Your task to perform on an android device: toggle show notifications on the lock screen Image 0: 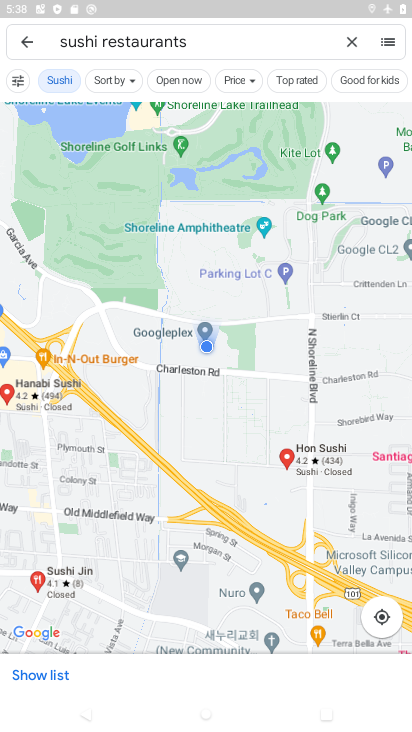
Step 0: press home button
Your task to perform on an android device: toggle show notifications on the lock screen Image 1: 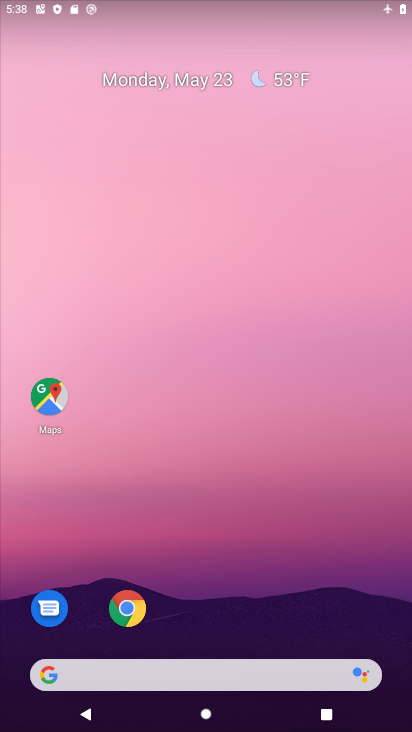
Step 1: drag from (257, 612) to (235, 306)
Your task to perform on an android device: toggle show notifications on the lock screen Image 2: 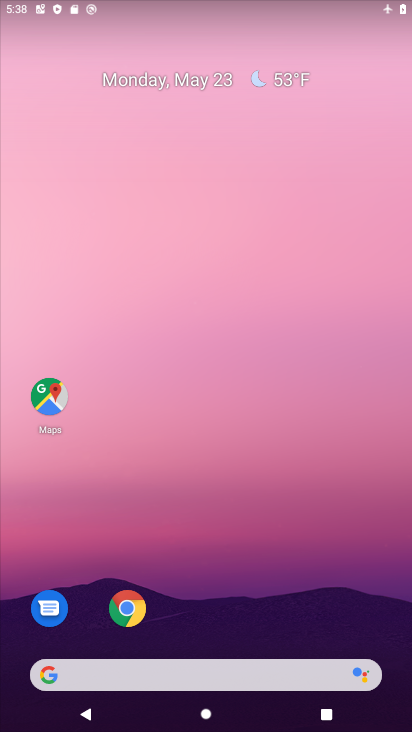
Step 2: drag from (210, 589) to (249, 207)
Your task to perform on an android device: toggle show notifications on the lock screen Image 3: 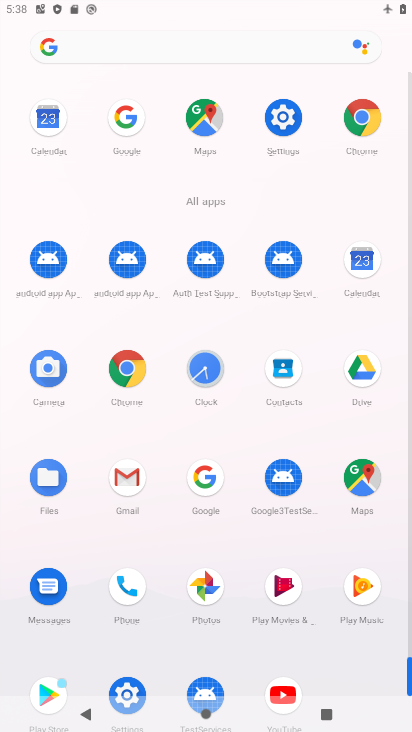
Step 3: click (279, 132)
Your task to perform on an android device: toggle show notifications on the lock screen Image 4: 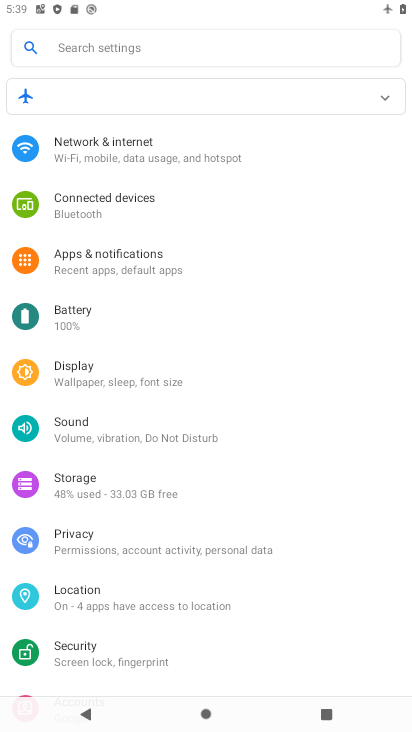
Step 4: click (161, 271)
Your task to perform on an android device: toggle show notifications on the lock screen Image 5: 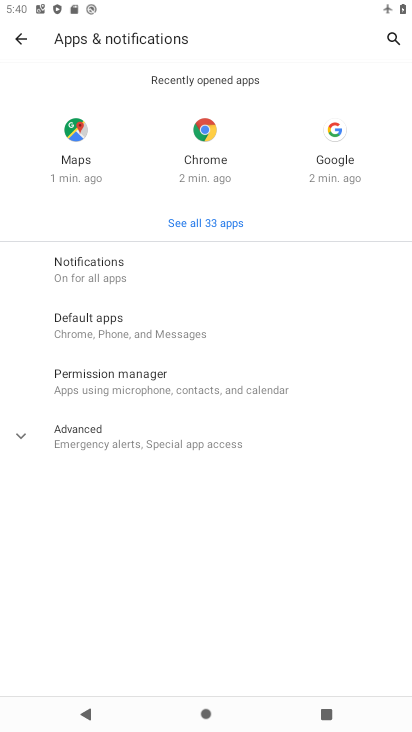
Step 5: click (161, 275)
Your task to perform on an android device: toggle show notifications on the lock screen Image 6: 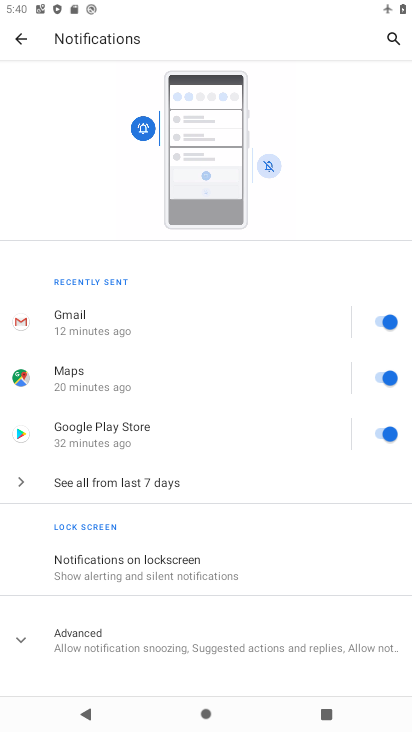
Step 6: click (141, 578)
Your task to perform on an android device: toggle show notifications on the lock screen Image 7: 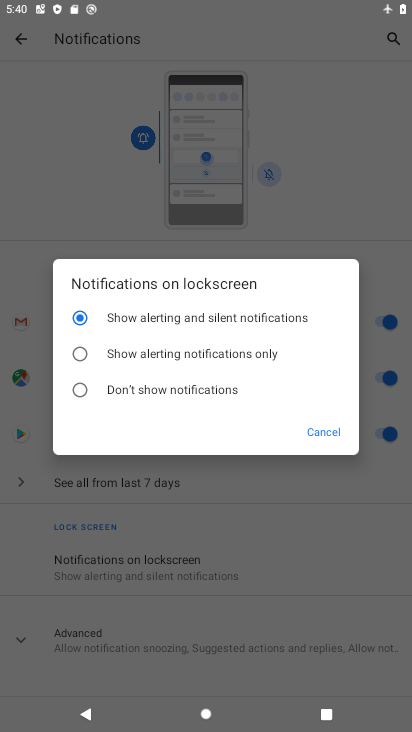
Step 7: click (188, 391)
Your task to perform on an android device: toggle show notifications on the lock screen Image 8: 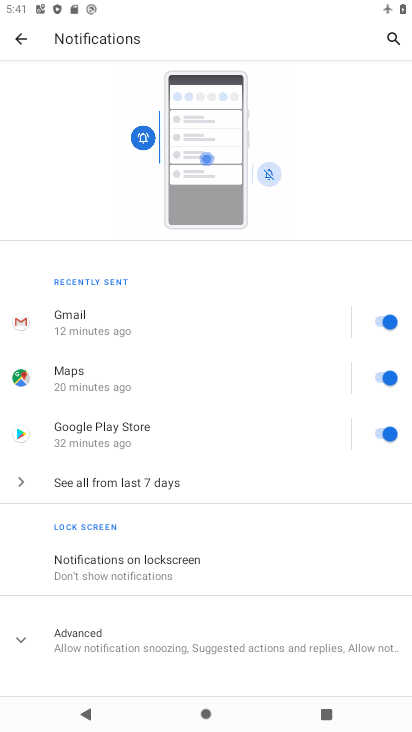
Step 8: click (147, 569)
Your task to perform on an android device: toggle show notifications on the lock screen Image 9: 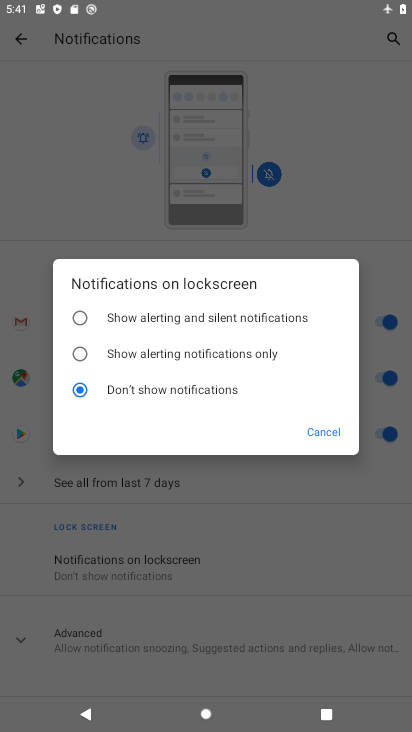
Step 9: click (82, 321)
Your task to perform on an android device: toggle show notifications on the lock screen Image 10: 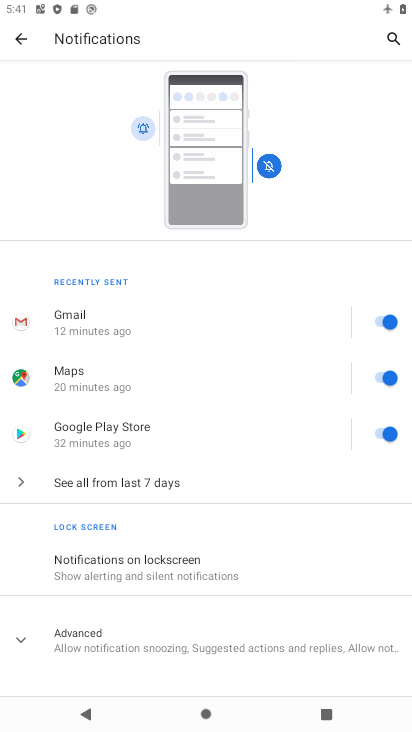
Step 10: task complete